Your task to perform on an android device: toggle sleep mode Image 0: 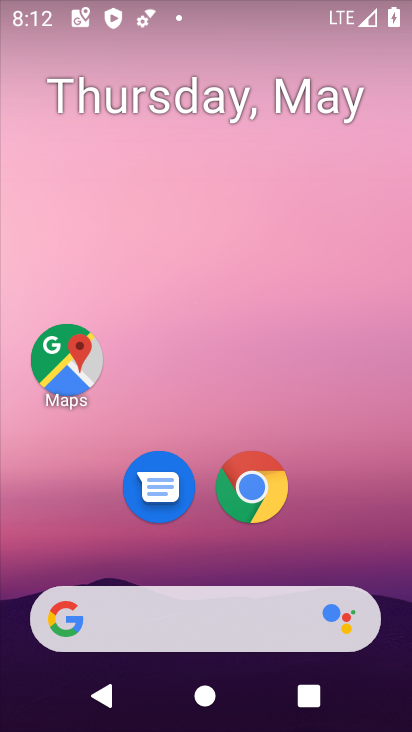
Step 0: drag from (199, 562) to (218, 268)
Your task to perform on an android device: toggle sleep mode Image 1: 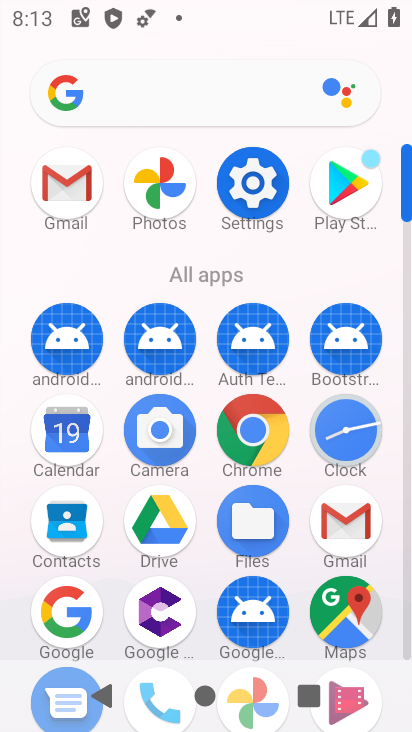
Step 1: click (238, 184)
Your task to perform on an android device: toggle sleep mode Image 2: 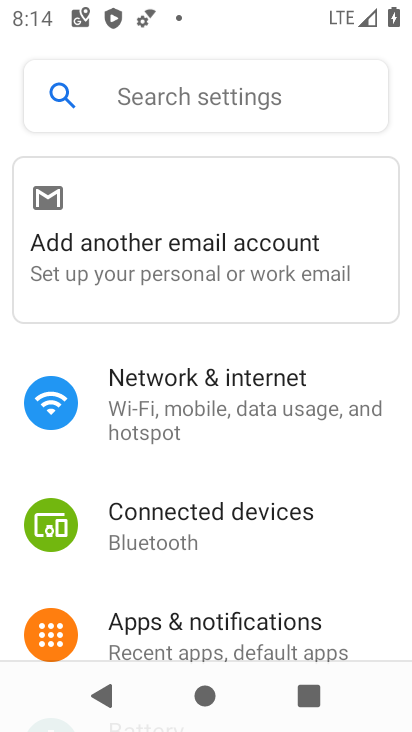
Step 2: drag from (180, 602) to (261, 252)
Your task to perform on an android device: toggle sleep mode Image 3: 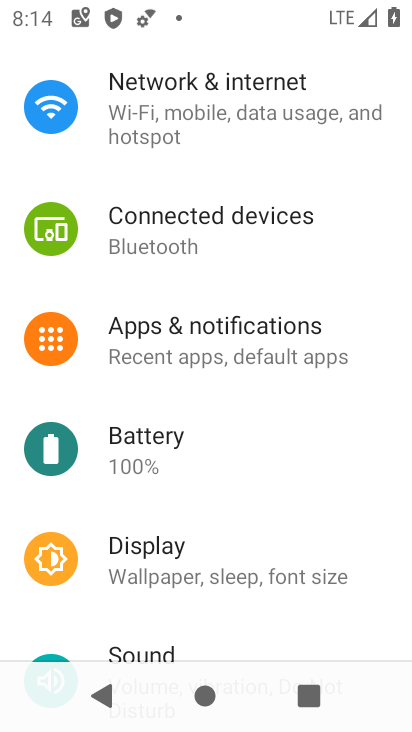
Step 3: click (172, 595)
Your task to perform on an android device: toggle sleep mode Image 4: 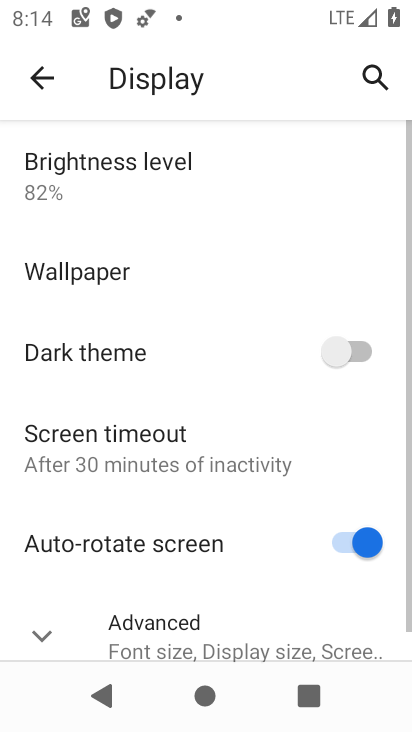
Step 4: drag from (217, 588) to (325, 182)
Your task to perform on an android device: toggle sleep mode Image 5: 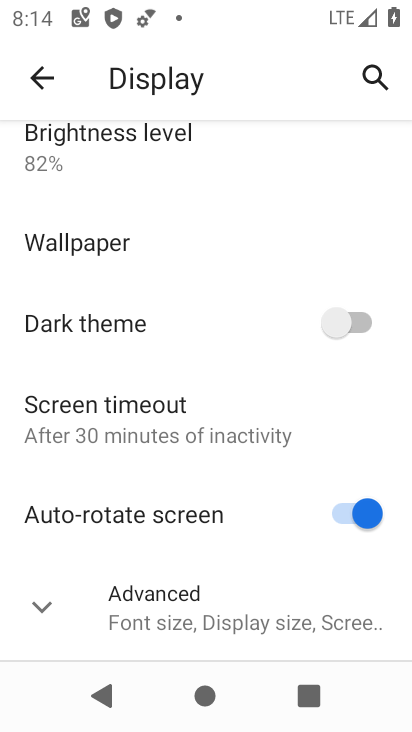
Step 5: click (182, 606)
Your task to perform on an android device: toggle sleep mode Image 6: 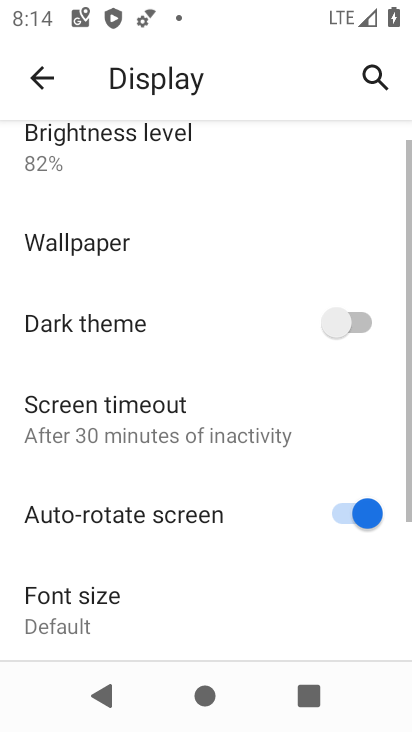
Step 6: click (196, 428)
Your task to perform on an android device: toggle sleep mode Image 7: 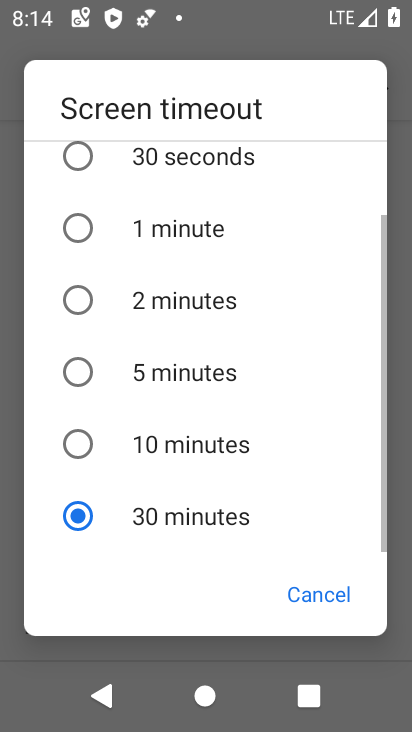
Step 7: task complete